Your task to perform on an android device: turn on the 12-hour format for clock Image 0: 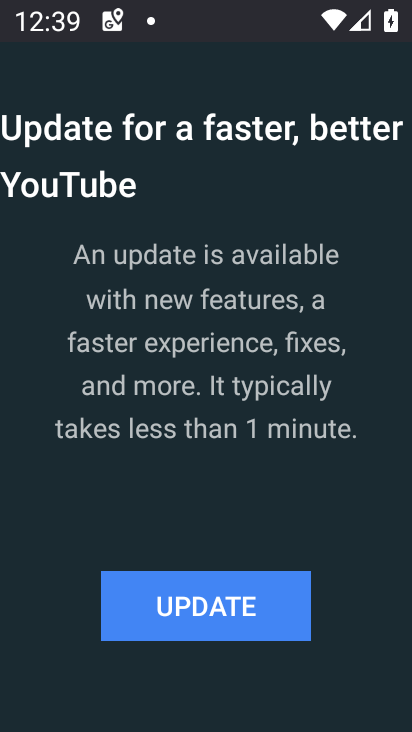
Step 0: click (396, 495)
Your task to perform on an android device: turn on the 12-hour format for clock Image 1: 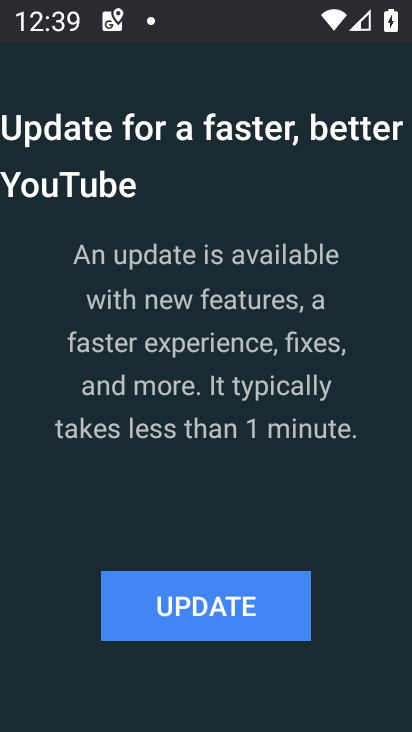
Step 1: press back button
Your task to perform on an android device: turn on the 12-hour format for clock Image 2: 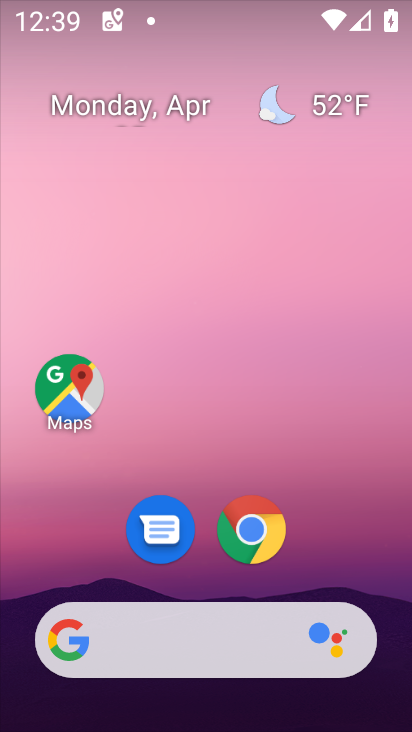
Step 2: drag from (399, 636) to (364, 226)
Your task to perform on an android device: turn on the 12-hour format for clock Image 3: 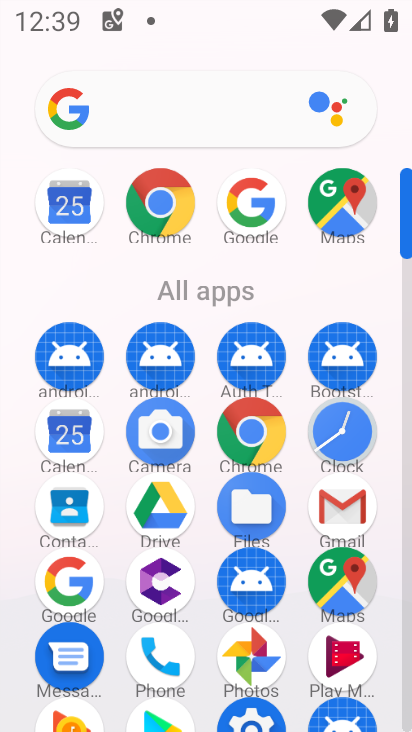
Step 3: click (345, 430)
Your task to perform on an android device: turn on the 12-hour format for clock Image 4: 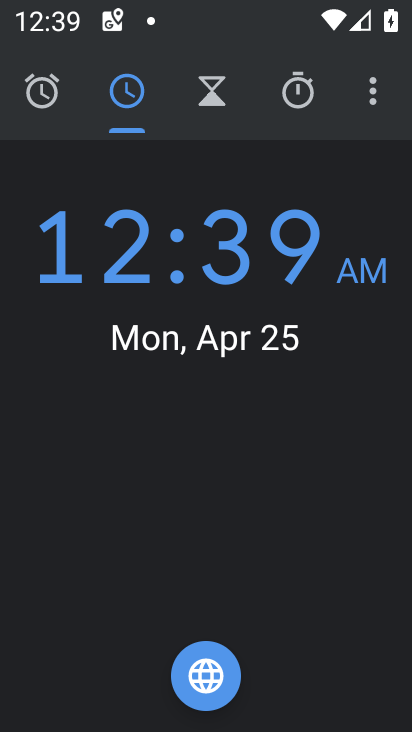
Step 4: click (370, 91)
Your task to perform on an android device: turn on the 12-hour format for clock Image 5: 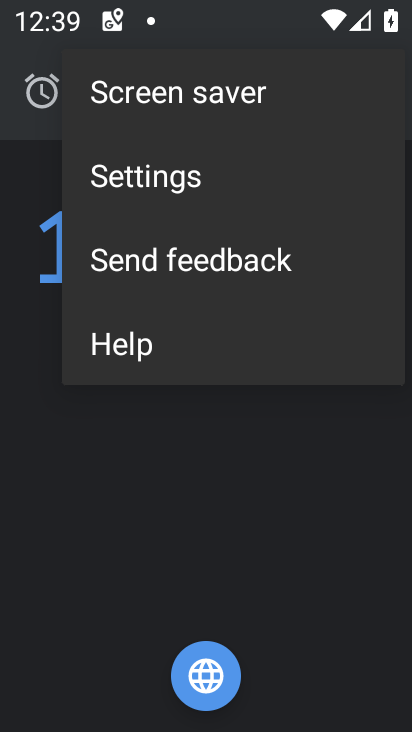
Step 5: click (118, 176)
Your task to perform on an android device: turn on the 12-hour format for clock Image 6: 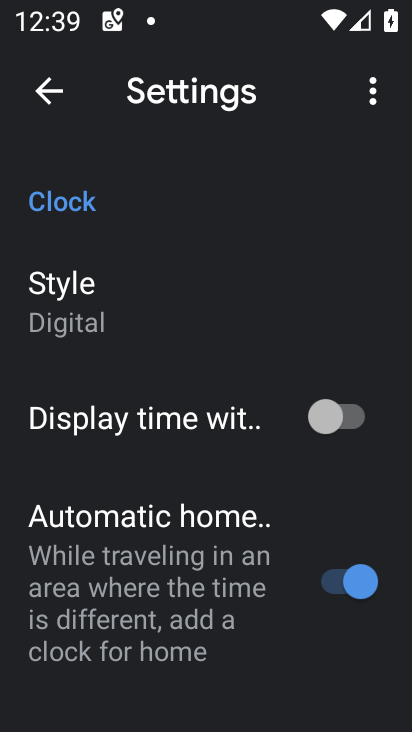
Step 6: drag from (238, 678) to (223, 260)
Your task to perform on an android device: turn on the 12-hour format for clock Image 7: 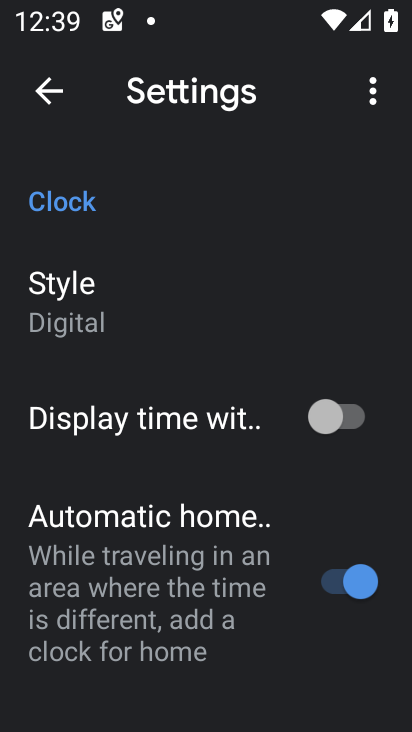
Step 7: drag from (219, 650) to (205, 240)
Your task to perform on an android device: turn on the 12-hour format for clock Image 8: 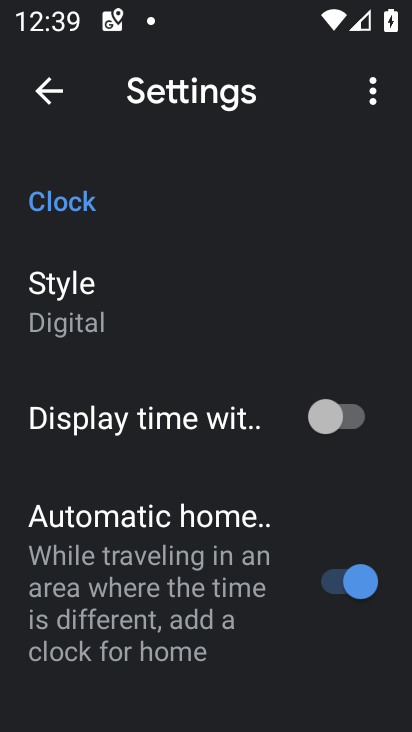
Step 8: click (200, 247)
Your task to perform on an android device: turn on the 12-hour format for clock Image 9: 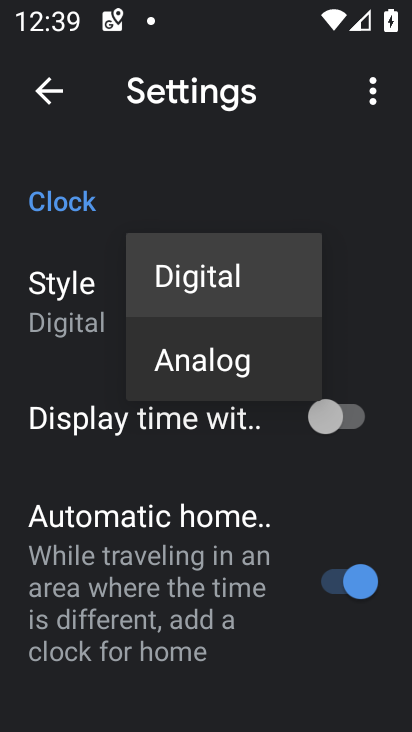
Step 9: click (187, 377)
Your task to perform on an android device: turn on the 12-hour format for clock Image 10: 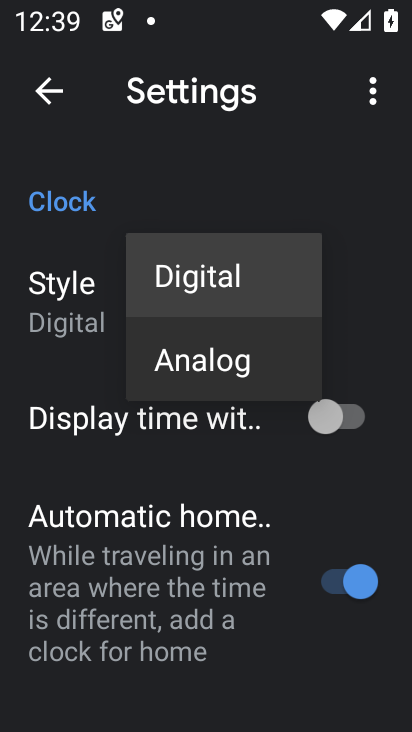
Step 10: drag from (143, 684) to (127, 259)
Your task to perform on an android device: turn on the 12-hour format for clock Image 11: 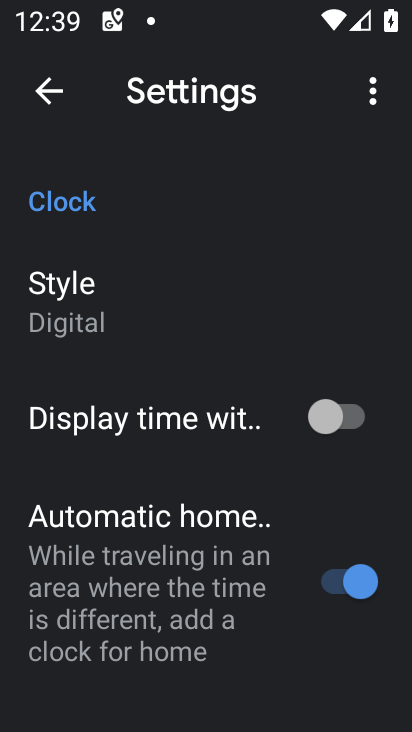
Step 11: drag from (195, 661) to (199, 262)
Your task to perform on an android device: turn on the 12-hour format for clock Image 12: 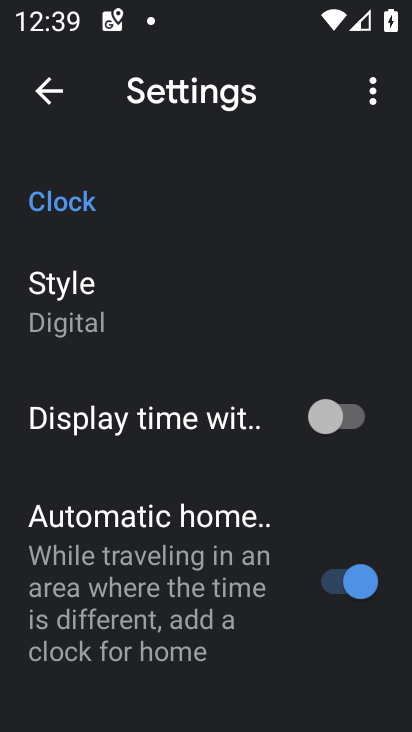
Step 12: drag from (271, 495) to (244, 266)
Your task to perform on an android device: turn on the 12-hour format for clock Image 13: 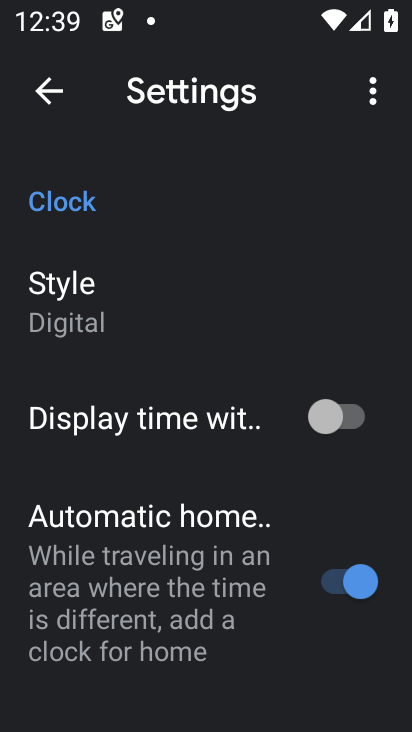
Step 13: drag from (243, 649) to (198, 127)
Your task to perform on an android device: turn on the 12-hour format for clock Image 14: 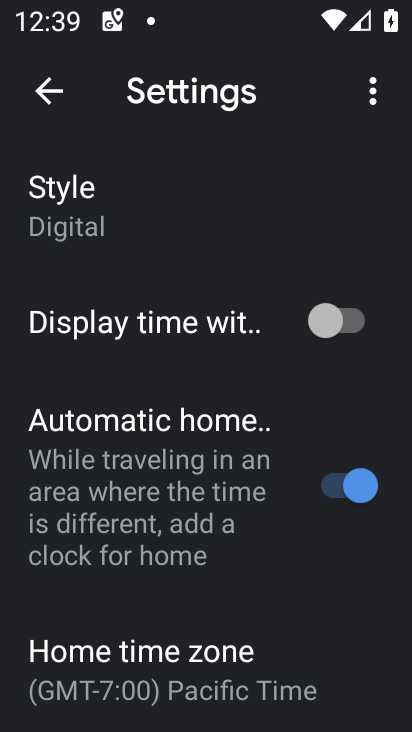
Step 14: drag from (262, 646) to (178, 87)
Your task to perform on an android device: turn on the 12-hour format for clock Image 15: 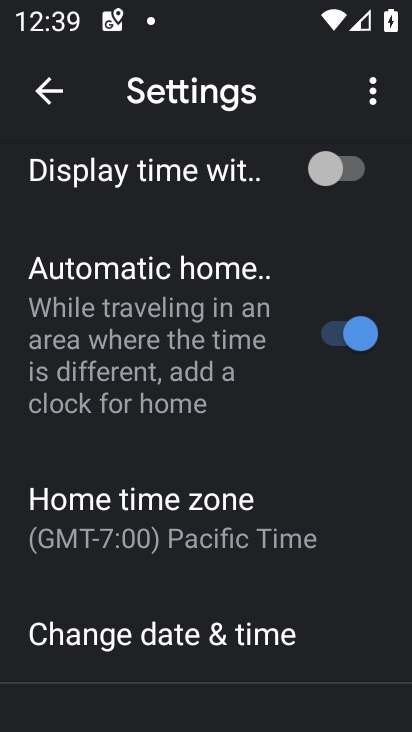
Step 15: click (154, 639)
Your task to perform on an android device: turn on the 12-hour format for clock Image 16: 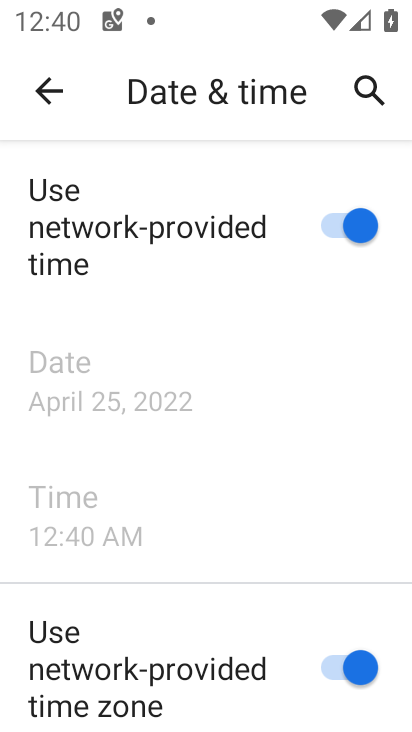
Step 16: task complete